Your task to perform on an android device: turn off improve location accuracy Image 0: 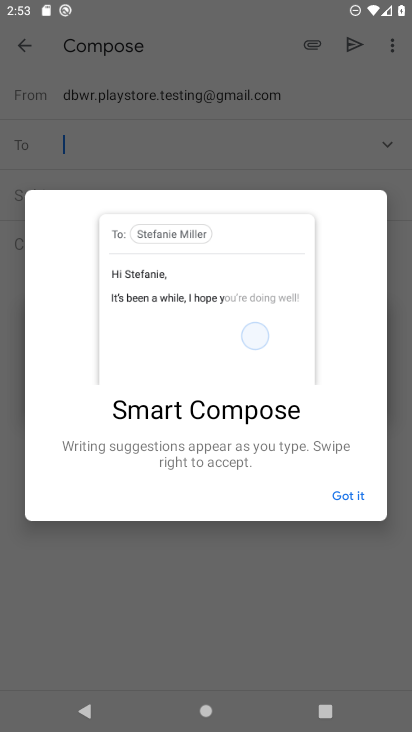
Step 0: press home button
Your task to perform on an android device: turn off improve location accuracy Image 1: 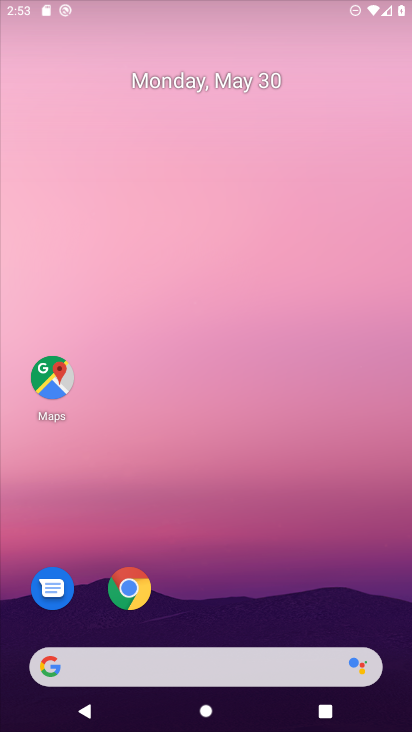
Step 1: drag from (199, 590) to (231, 132)
Your task to perform on an android device: turn off improve location accuracy Image 2: 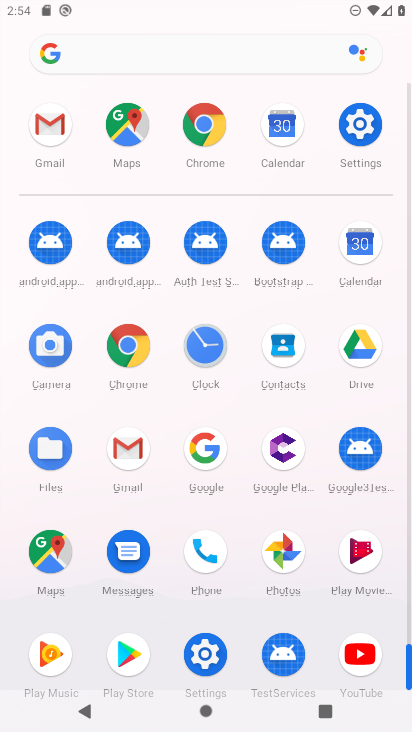
Step 2: click (371, 119)
Your task to perform on an android device: turn off improve location accuracy Image 3: 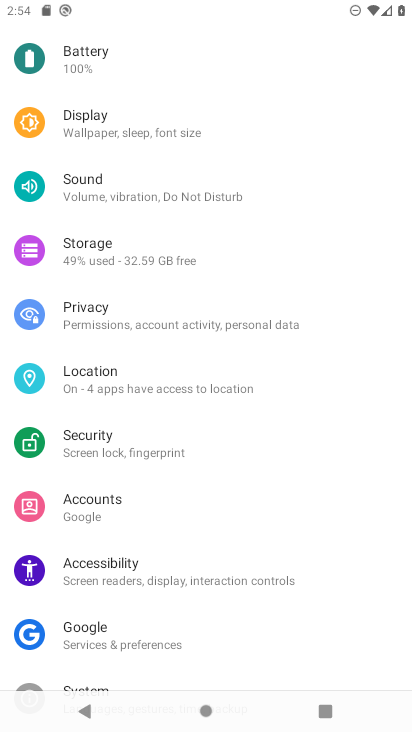
Step 3: click (117, 366)
Your task to perform on an android device: turn off improve location accuracy Image 4: 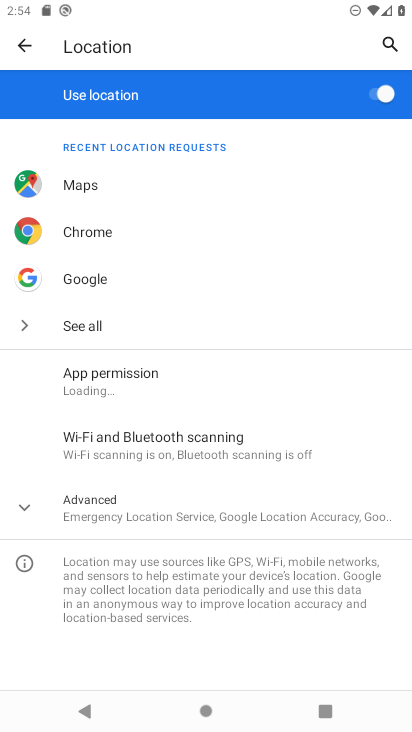
Step 4: click (122, 509)
Your task to perform on an android device: turn off improve location accuracy Image 5: 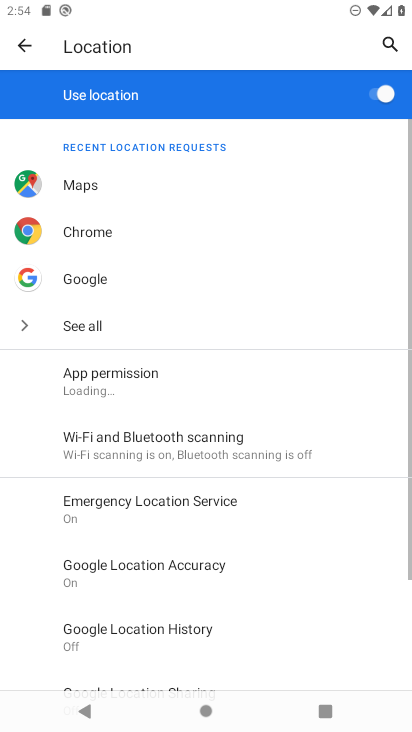
Step 5: click (117, 574)
Your task to perform on an android device: turn off improve location accuracy Image 6: 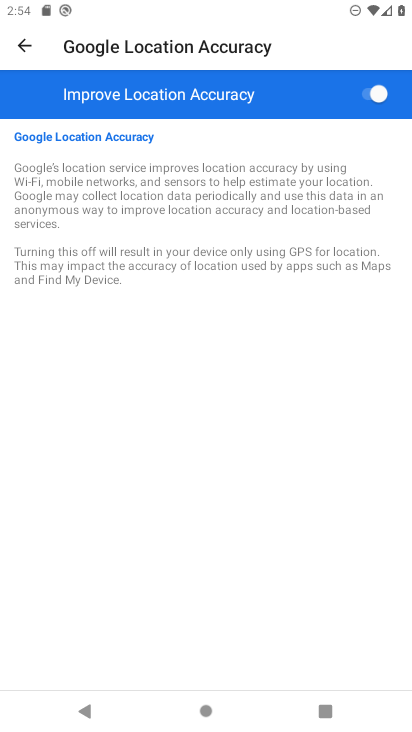
Step 6: click (373, 102)
Your task to perform on an android device: turn off improve location accuracy Image 7: 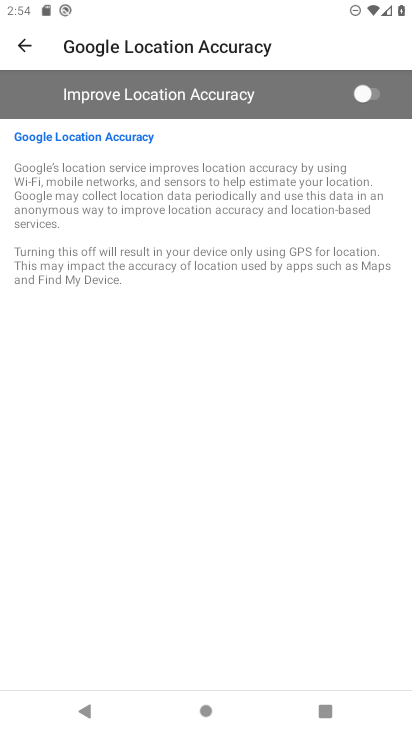
Step 7: task complete